Your task to perform on an android device: turn notification dots off Image 0: 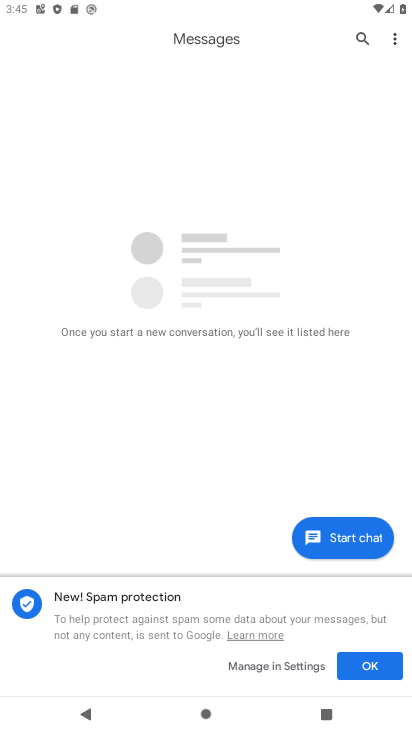
Step 0: press home button
Your task to perform on an android device: turn notification dots off Image 1: 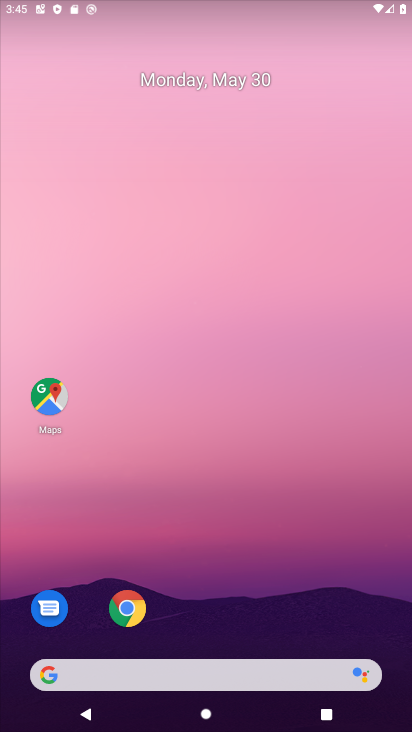
Step 1: drag from (249, 582) to (223, 240)
Your task to perform on an android device: turn notification dots off Image 2: 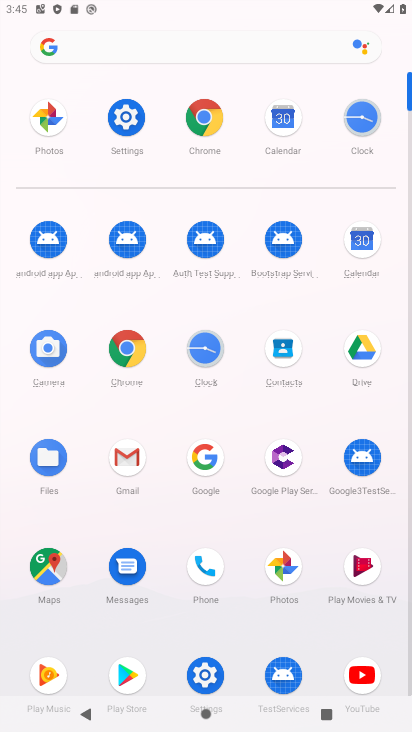
Step 2: click (121, 116)
Your task to perform on an android device: turn notification dots off Image 3: 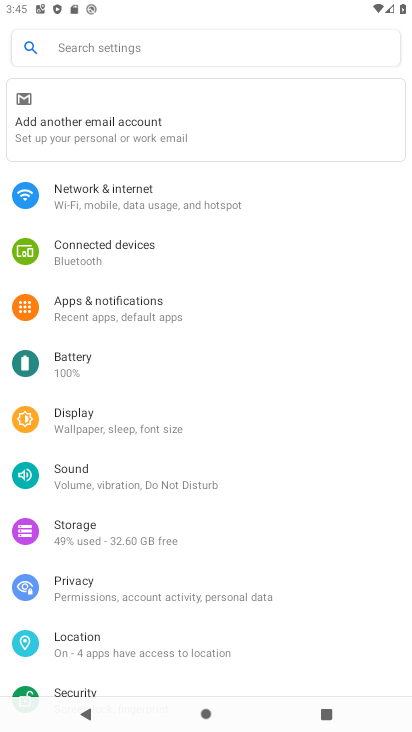
Step 3: click (132, 42)
Your task to perform on an android device: turn notification dots off Image 4: 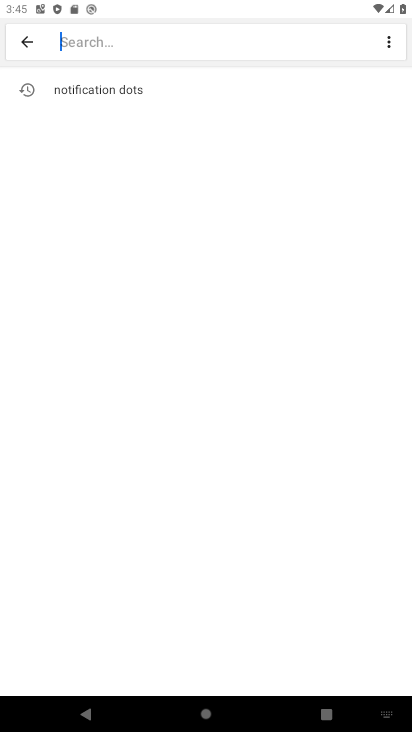
Step 4: click (122, 91)
Your task to perform on an android device: turn notification dots off Image 5: 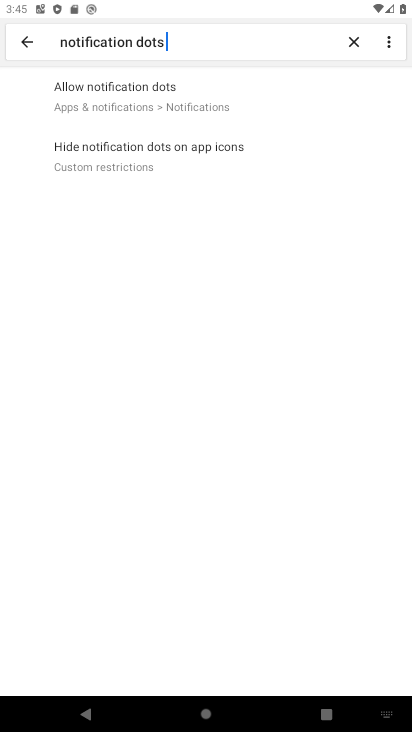
Step 5: click (153, 98)
Your task to perform on an android device: turn notification dots off Image 6: 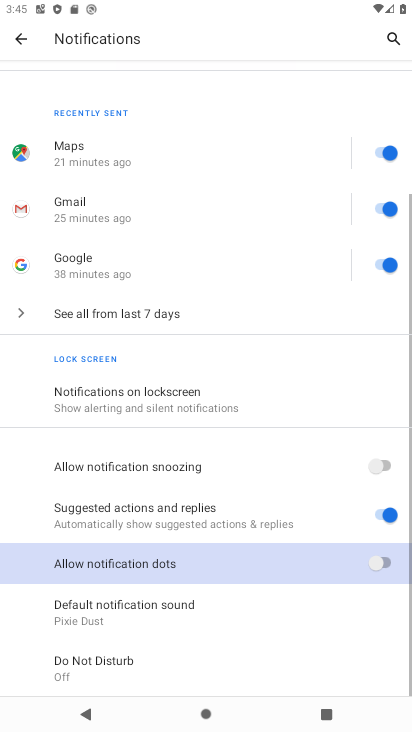
Step 6: click (388, 567)
Your task to perform on an android device: turn notification dots off Image 7: 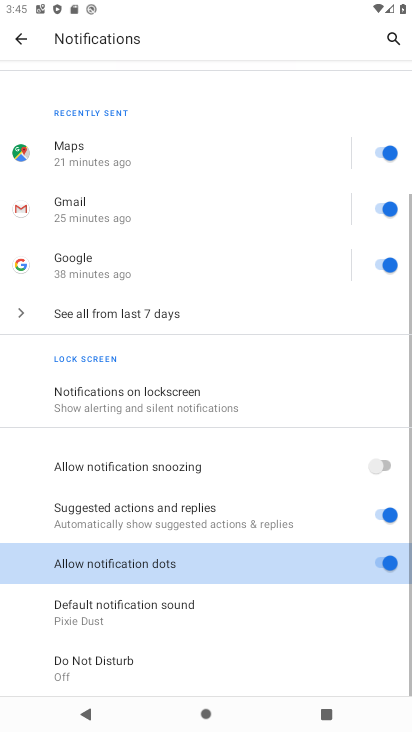
Step 7: task complete